Your task to perform on an android device: delete the emails in spam in the gmail app Image 0: 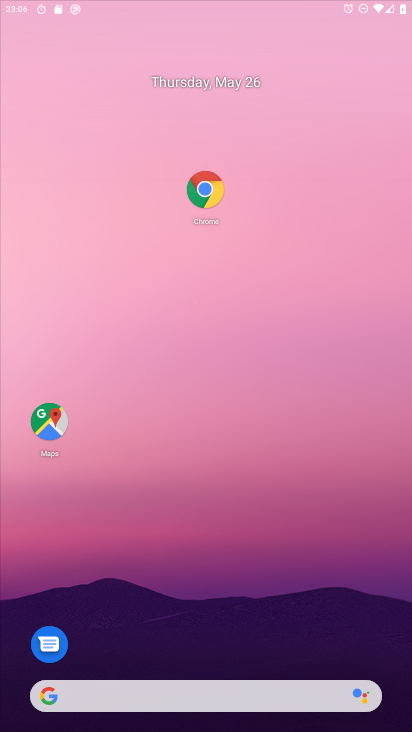
Step 0: drag from (291, 378) to (334, 95)
Your task to perform on an android device: delete the emails in spam in the gmail app Image 1: 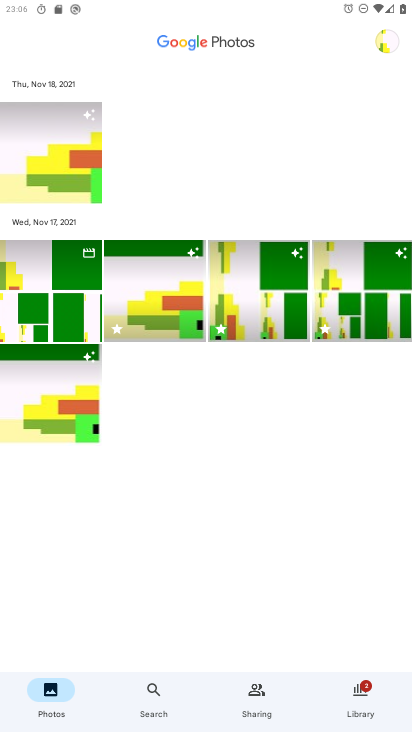
Step 1: press home button
Your task to perform on an android device: delete the emails in spam in the gmail app Image 2: 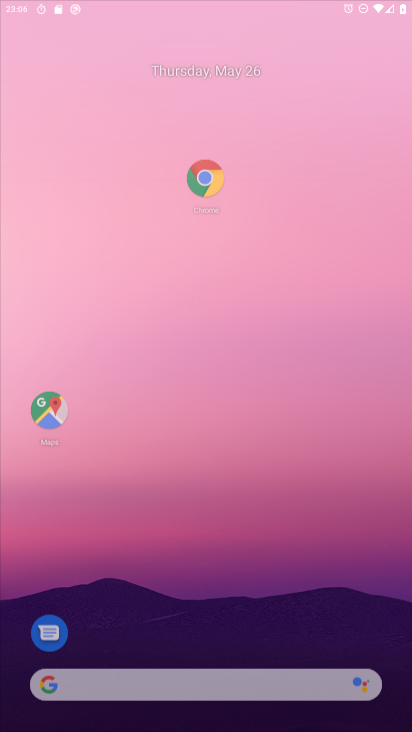
Step 2: drag from (215, 603) to (329, 73)
Your task to perform on an android device: delete the emails in spam in the gmail app Image 3: 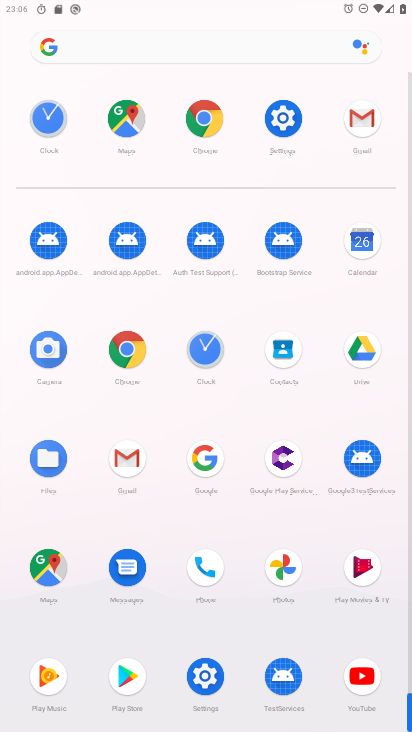
Step 3: click (115, 461)
Your task to perform on an android device: delete the emails in spam in the gmail app Image 4: 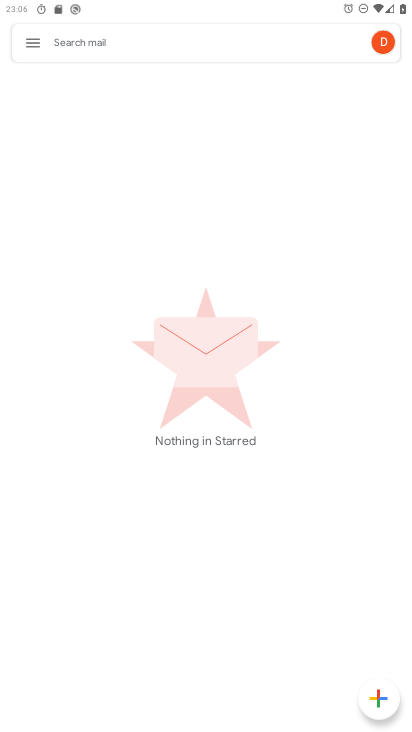
Step 4: click (36, 46)
Your task to perform on an android device: delete the emails in spam in the gmail app Image 5: 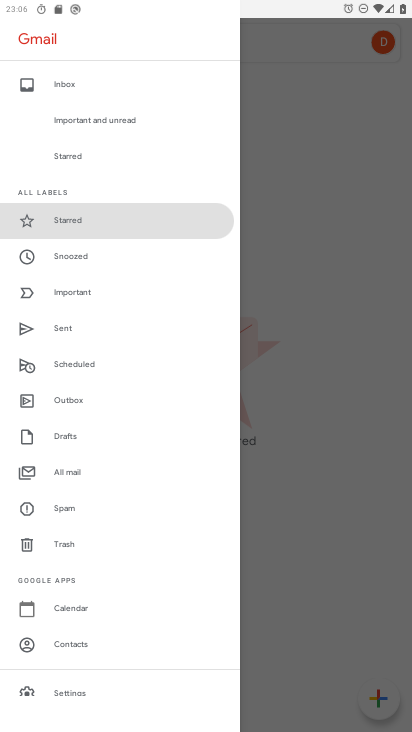
Step 5: click (75, 507)
Your task to perform on an android device: delete the emails in spam in the gmail app Image 6: 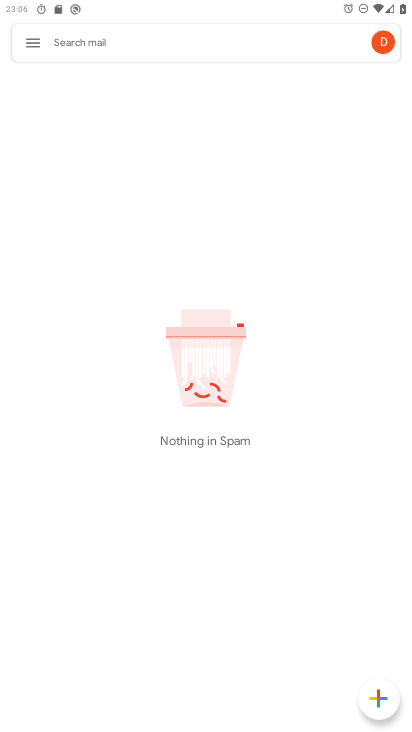
Step 6: task complete